Your task to perform on an android device: Open privacy settings Image 0: 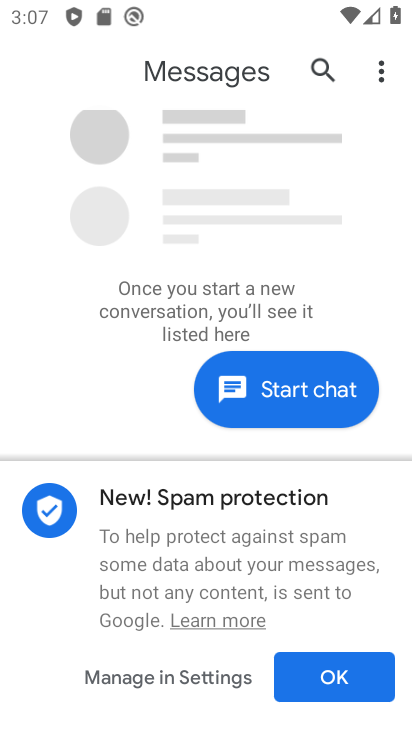
Step 0: press home button
Your task to perform on an android device: Open privacy settings Image 1: 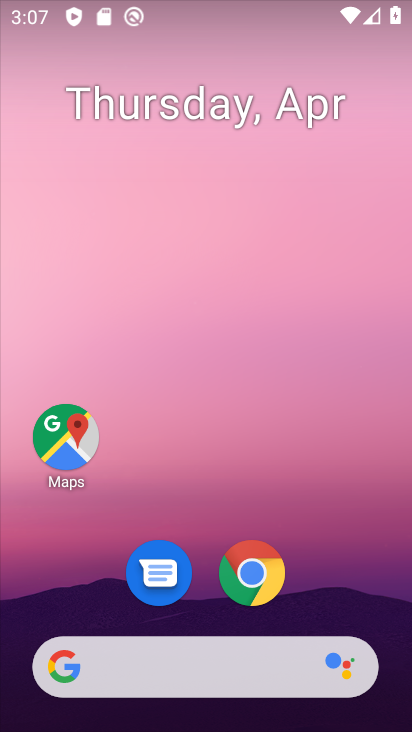
Step 1: drag from (333, 589) to (247, 36)
Your task to perform on an android device: Open privacy settings Image 2: 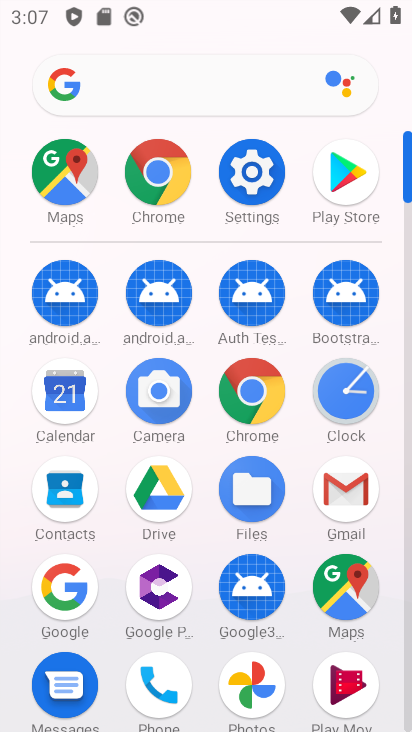
Step 2: click (255, 188)
Your task to perform on an android device: Open privacy settings Image 3: 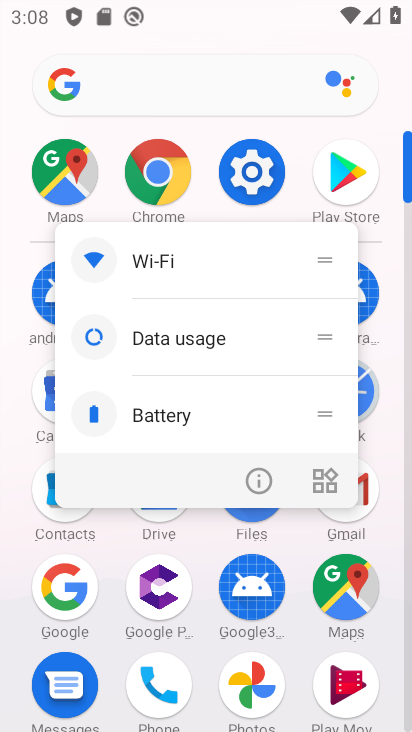
Step 3: click (255, 188)
Your task to perform on an android device: Open privacy settings Image 4: 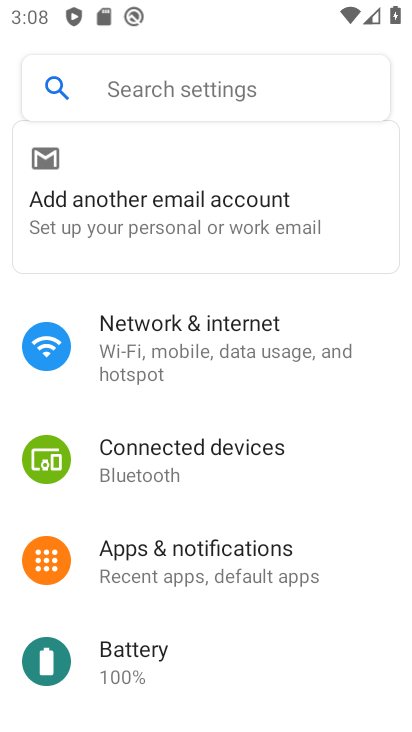
Step 4: drag from (180, 666) to (253, 95)
Your task to perform on an android device: Open privacy settings Image 5: 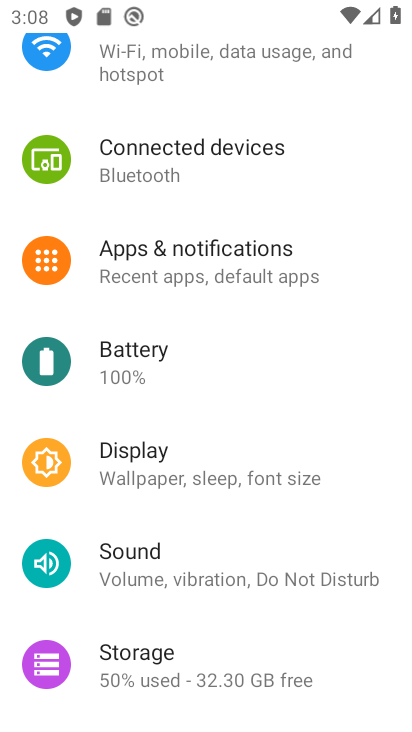
Step 5: drag from (155, 655) to (206, 155)
Your task to perform on an android device: Open privacy settings Image 6: 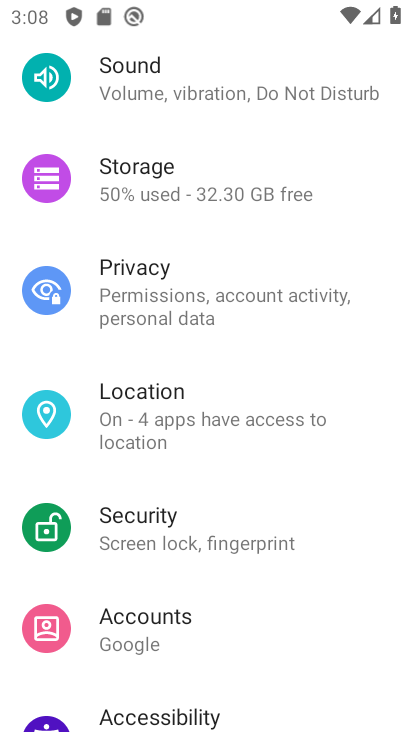
Step 6: drag from (126, 611) to (242, 138)
Your task to perform on an android device: Open privacy settings Image 7: 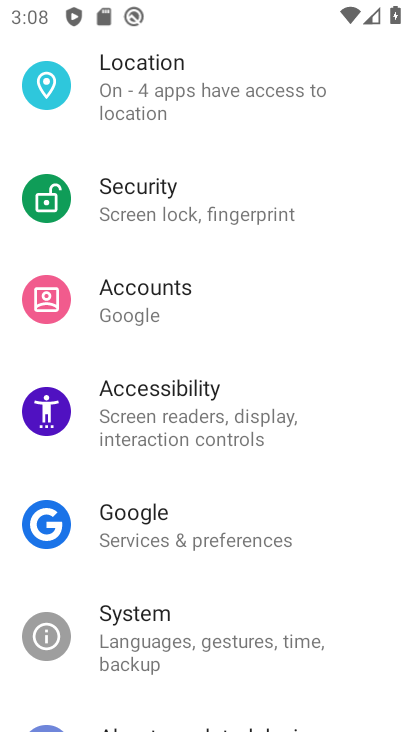
Step 7: drag from (245, 146) to (236, 611)
Your task to perform on an android device: Open privacy settings Image 8: 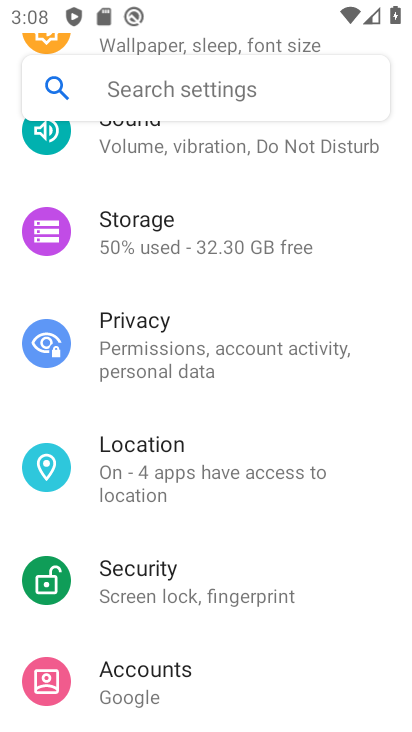
Step 8: drag from (142, 199) to (171, 603)
Your task to perform on an android device: Open privacy settings Image 9: 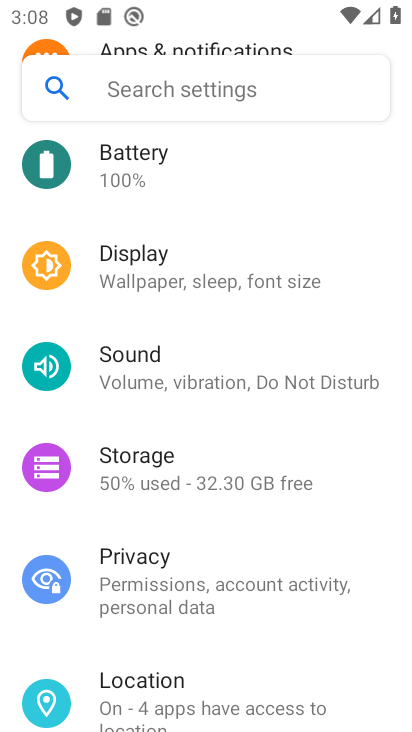
Step 9: click (145, 584)
Your task to perform on an android device: Open privacy settings Image 10: 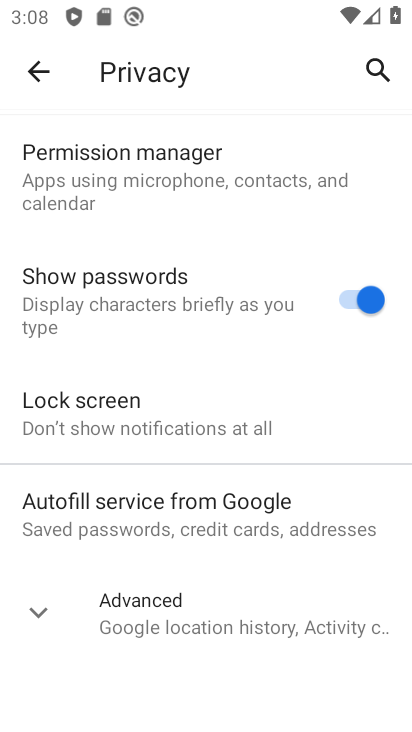
Step 10: task complete